Your task to perform on an android device: turn notification dots off Image 0: 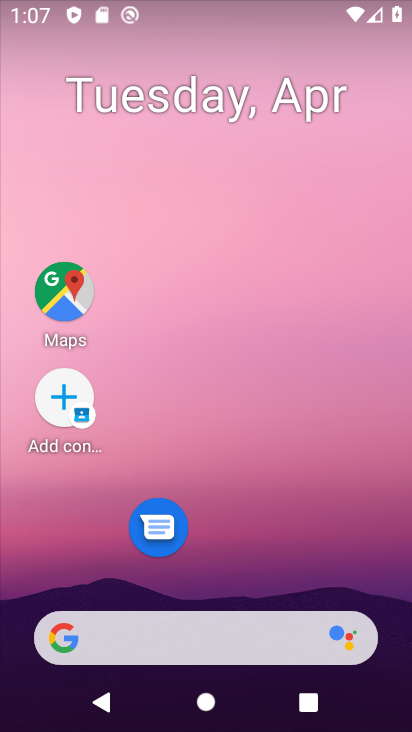
Step 0: drag from (260, 529) to (278, 43)
Your task to perform on an android device: turn notification dots off Image 1: 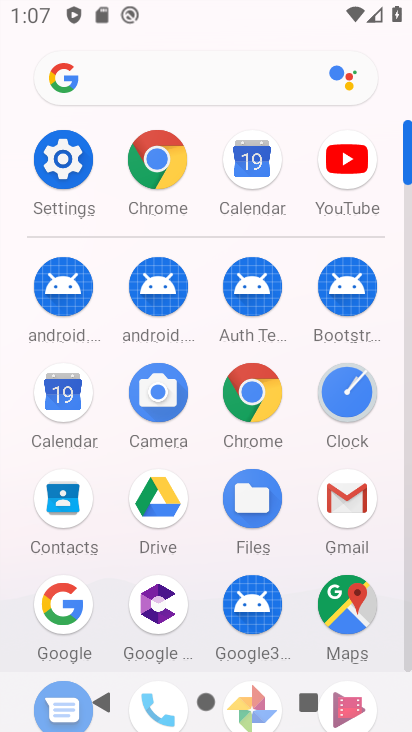
Step 1: click (61, 157)
Your task to perform on an android device: turn notification dots off Image 2: 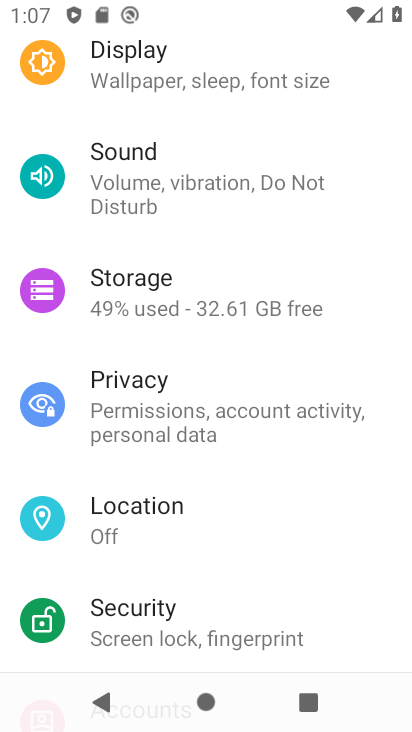
Step 2: drag from (233, 267) to (241, 351)
Your task to perform on an android device: turn notification dots off Image 3: 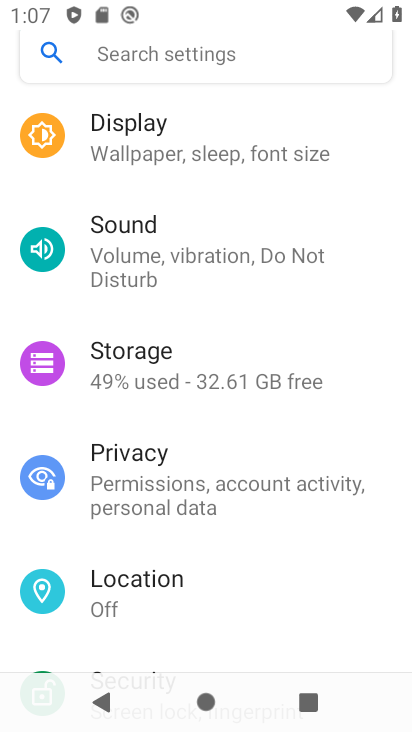
Step 3: drag from (234, 212) to (237, 349)
Your task to perform on an android device: turn notification dots off Image 4: 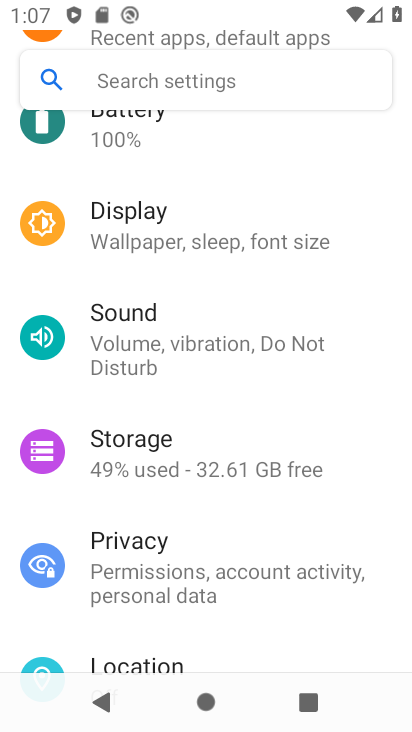
Step 4: drag from (238, 269) to (258, 370)
Your task to perform on an android device: turn notification dots off Image 5: 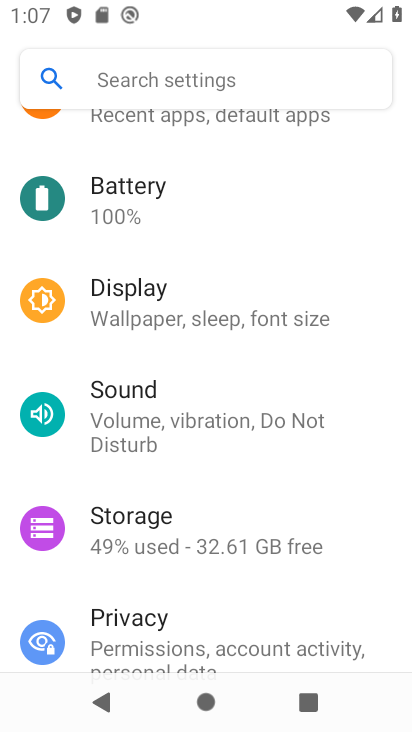
Step 5: drag from (267, 256) to (296, 360)
Your task to perform on an android device: turn notification dots off Image 6: 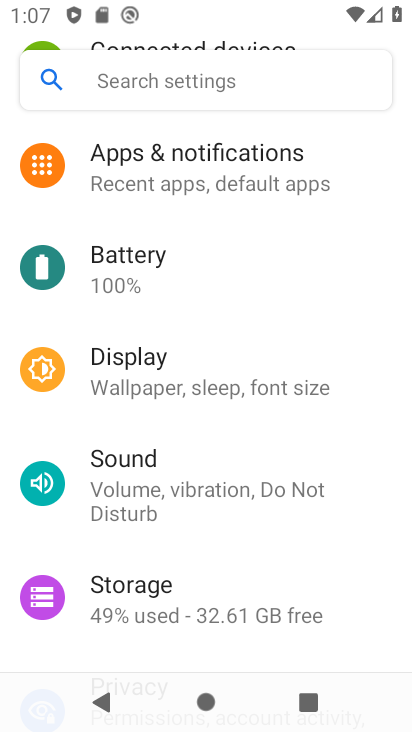
Step 6: drag from (269, 270) to (260, 354)
Your task to perform on an android device: turn notification dots off Image 7: 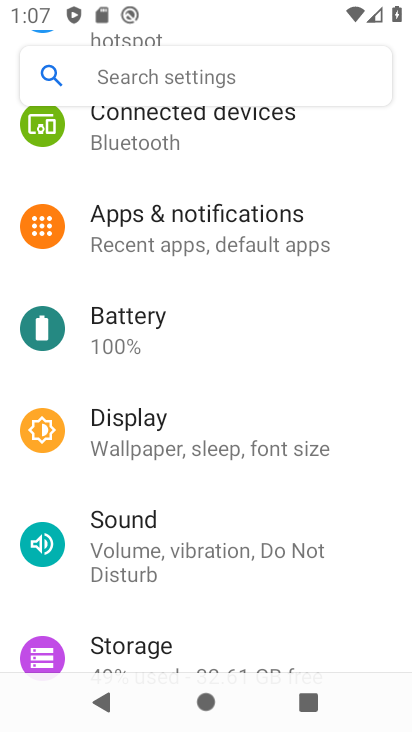
Step 7: click (248, 227)
Your task to perform on an android device: turn notification dots off Image 8: 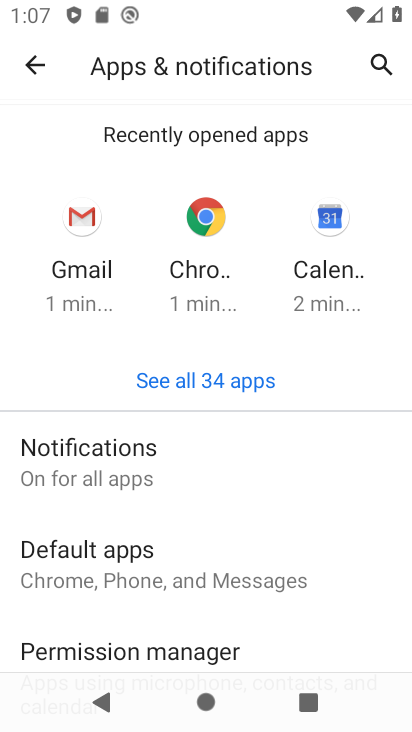
Step 8: click (146, 447)
Your task to perform on an android device: turn notification dots off Image 9: 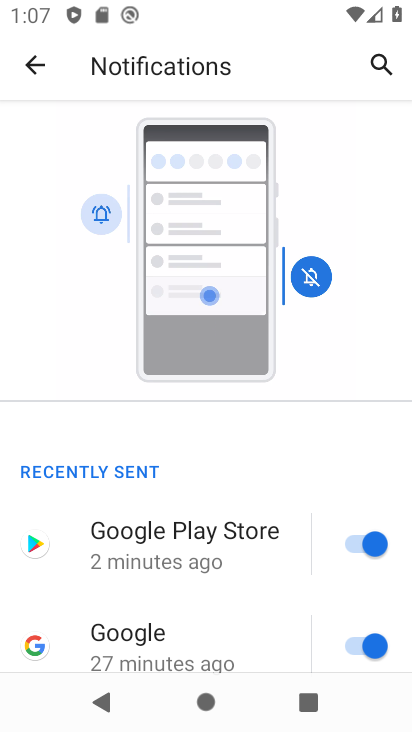
Step 9: drag from (220, 503) to (249, 304)
Your task to perform on an android device: turn notification dots off Image 10: 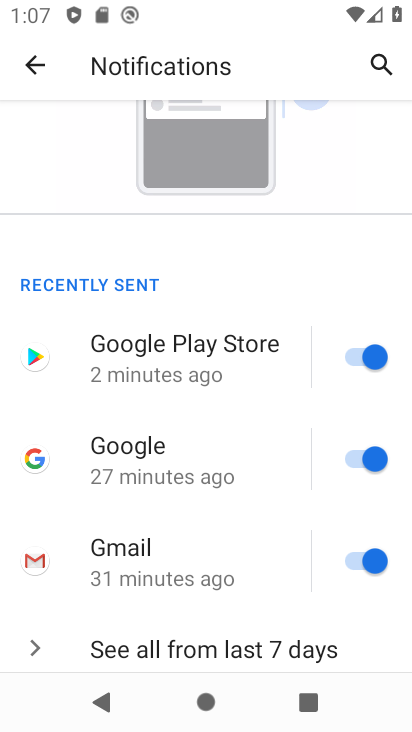
Step 10: drag from (227, 524) to (254, 328)
Your task to perform on an android device: turn notification dots off Image 11: 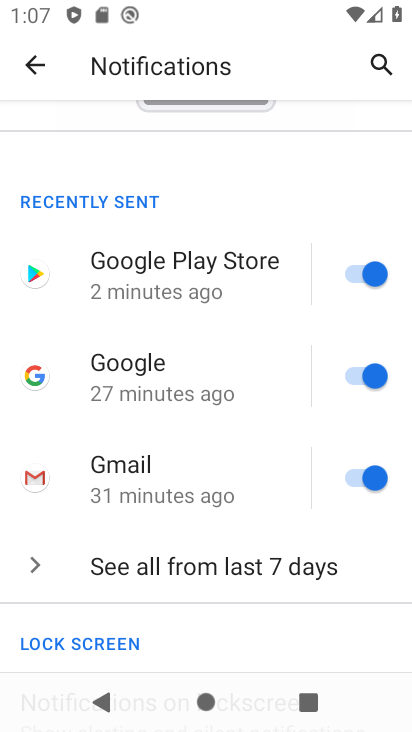
Step 11: drag from (191, 611) to (236, 415)
Your task to perform on an android device: turn notification dots off Image 12: 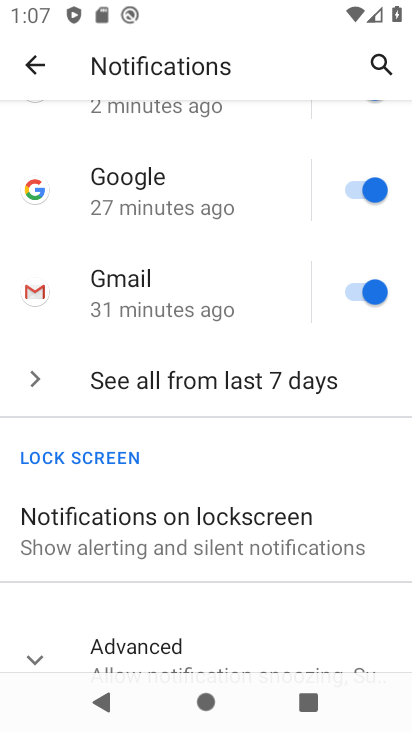
Step 12: drag from (209, 619) to (261, 400)
Your task to perform on an android device: turn notification dots off Image 13: 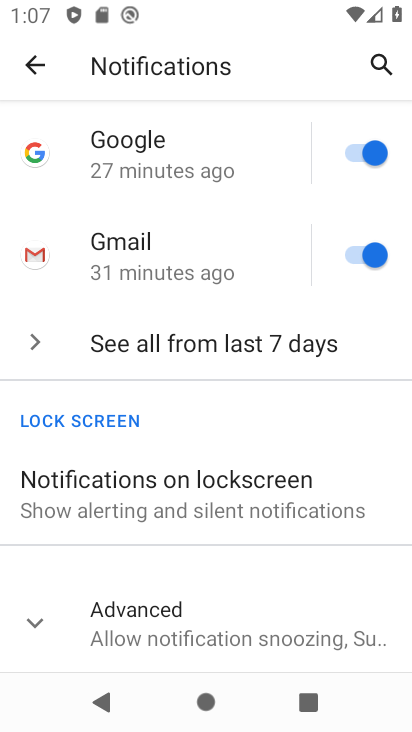
Step 13: click (208, 635)
Your task to perform on an android device: turn notification dots off Image 14: 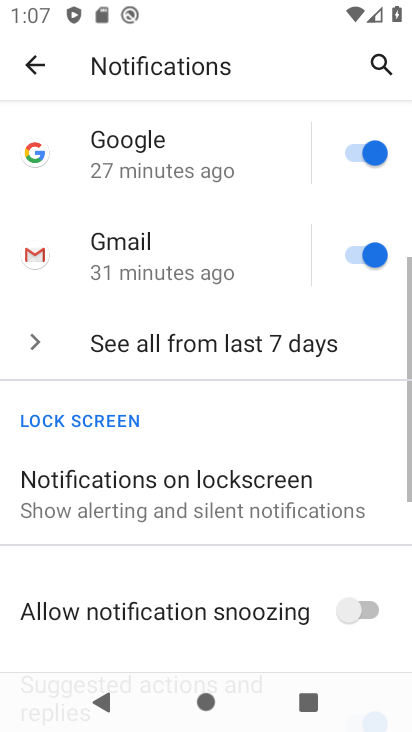
Step 14: task complete